Your task to perform on an android device: Open maps Image 0: 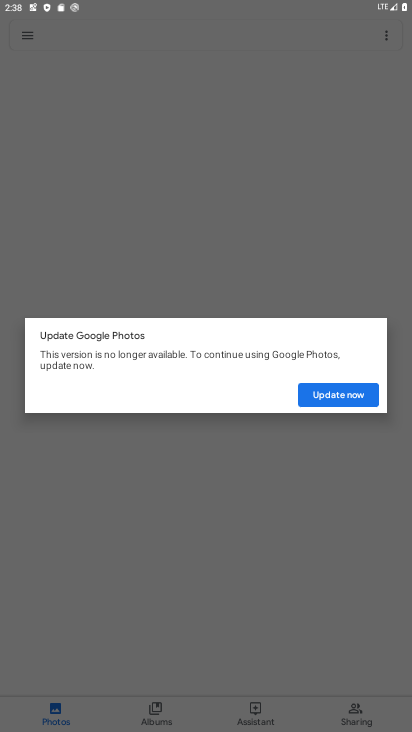
Step 0: press home button
Your task to perform on an android device: Open maps Image 1: 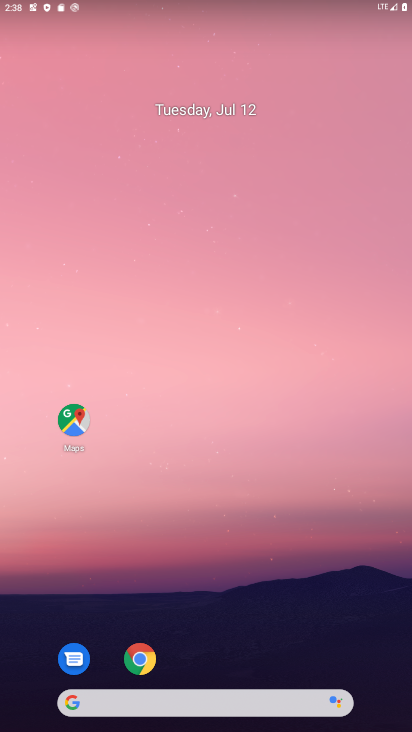
Step 1: drag from (233, 722) to (232, 147)
Your task to perform on an android device: Open maps Image 2: 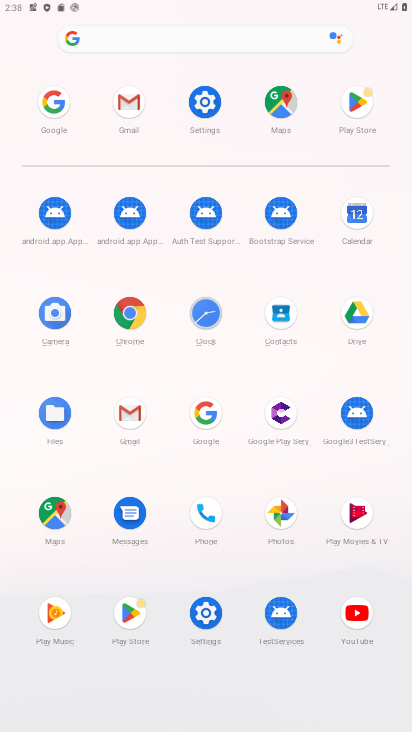
Step 2: click (51, 509)
Your task to perform on an android device: Open maps Image 3: 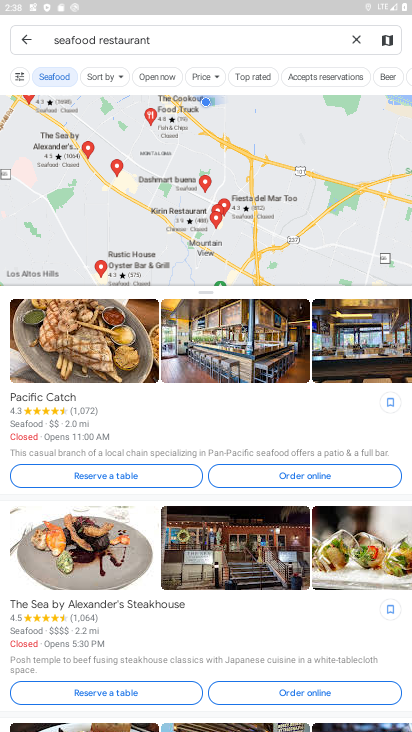
Step 3: task complete